Your task to perform on an android device: check google app version Image 0: 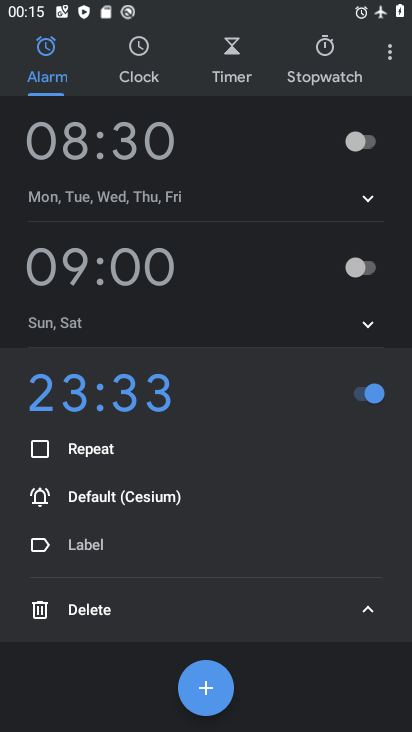
Step 0: press home button
Your task to perform on an android device: check google app version Image 1: 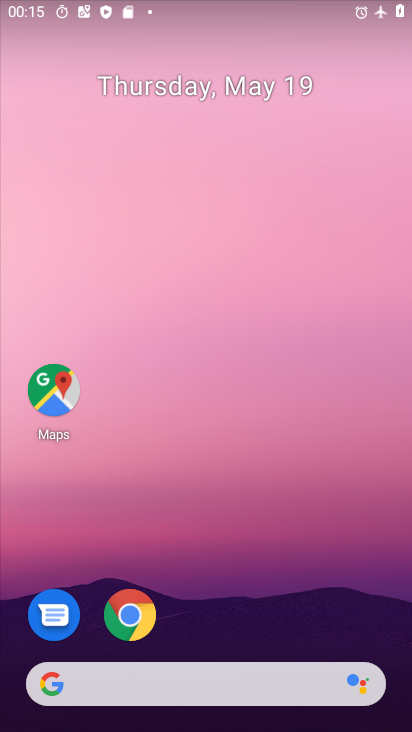
Step 1: drag from (83, 497) to (240, 201)
Your task to perform on an android device: check google app version Image 2: 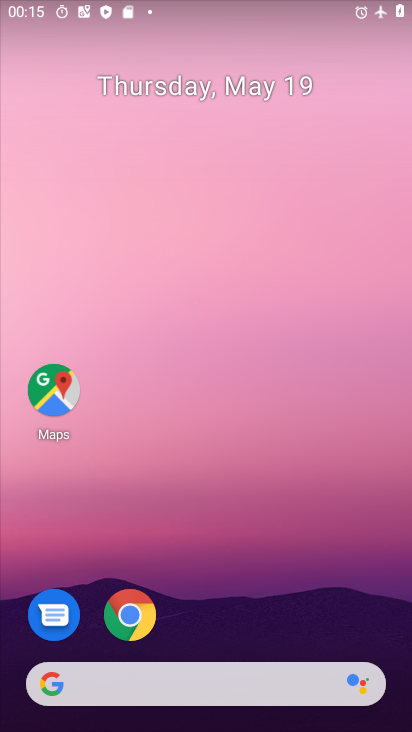
Step 2: drag from (83, 491) to (315, 99)
Your task to perform on an android device: check google app version Image 3: 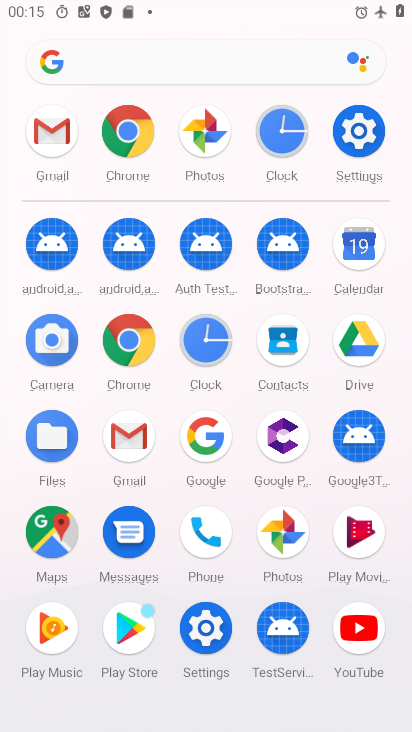
Step 3: click (368, 435)
Your task to perform on an android device: check google app version Image 4: 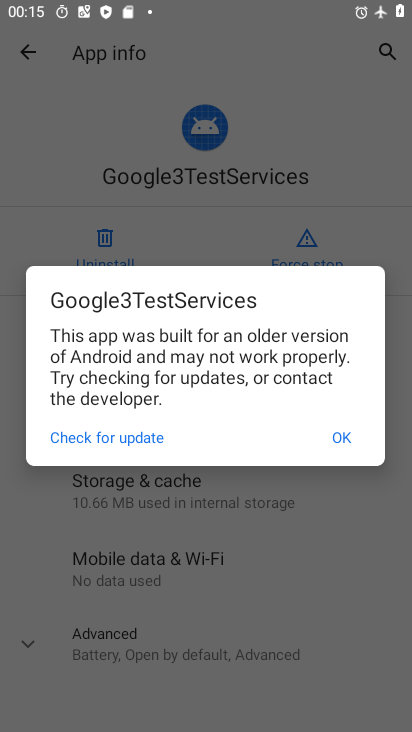
Step 4: click (347, 451)
Your task to perform on an android device: check google app version Image 5: 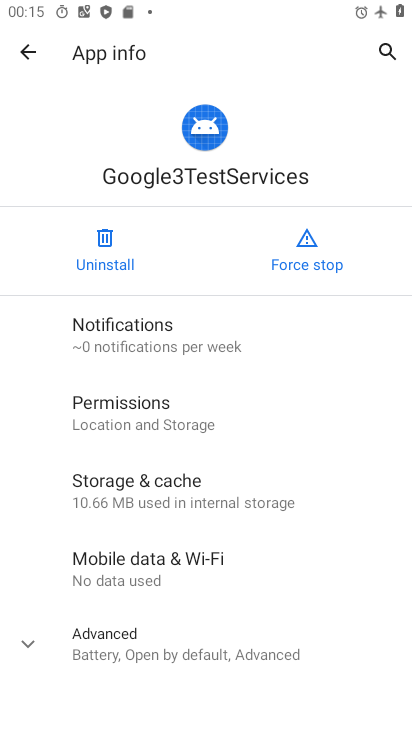
Step 5: drag from (12, 628) to (281, 233)
Your task to perform on an android device: check google app version Image 6: 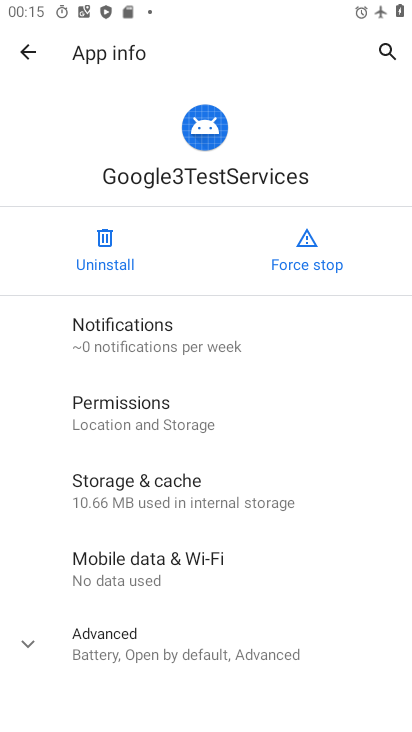
Step 6: click (137, 620)
Your task to perform on an android device: check google app version Image 7: 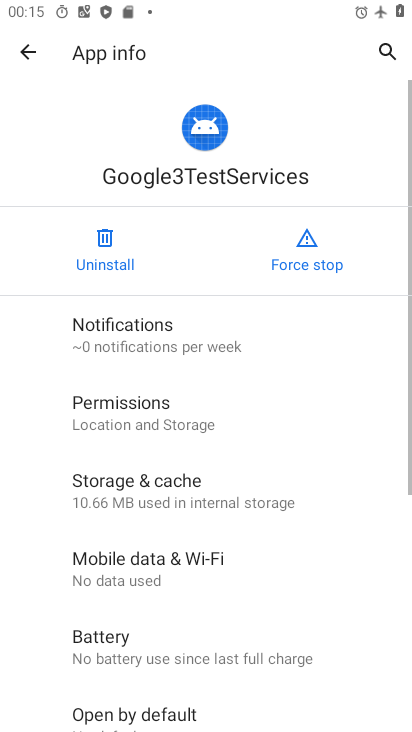
Step 7: task complete